Your task to perform on an android device: open a new tab in the chrome app Image 0: 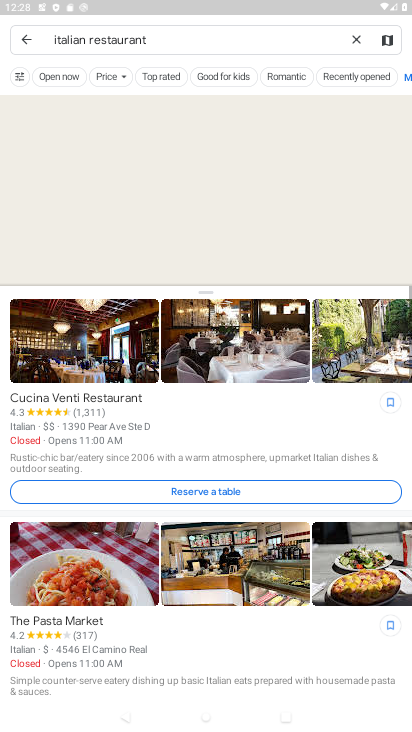
Step 0: press home button
Your task to perform on an android device: open a new tab in the chrome app Image 1: 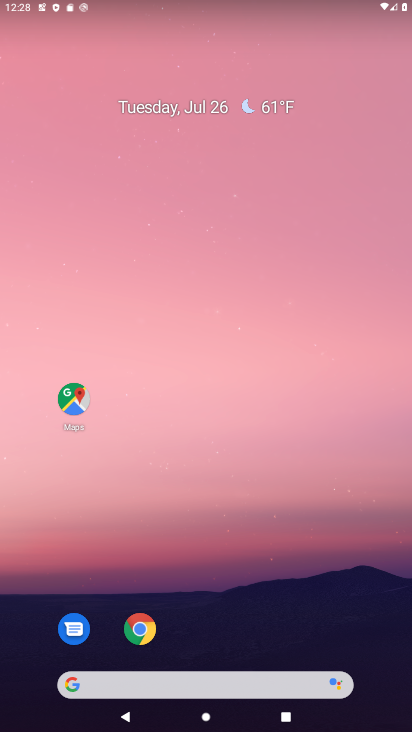
Step 1: click (141, 622)
Your task to perform on an android device: open a new tab in the chrome app Image 2: 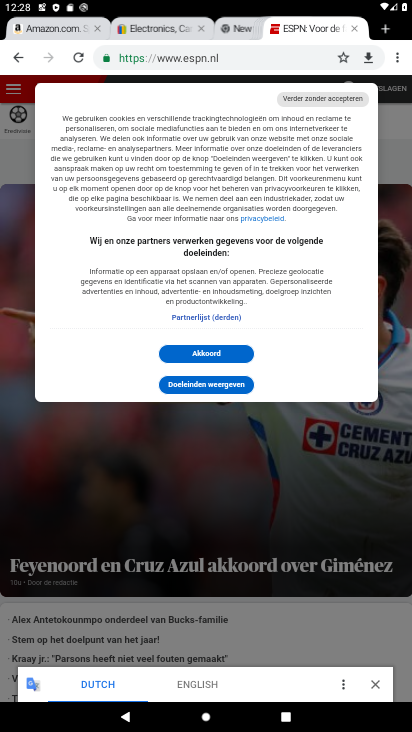
Step 2: click (393, 28)
Your task to perform on an android device: open a new tab in the chrome app Image 3: 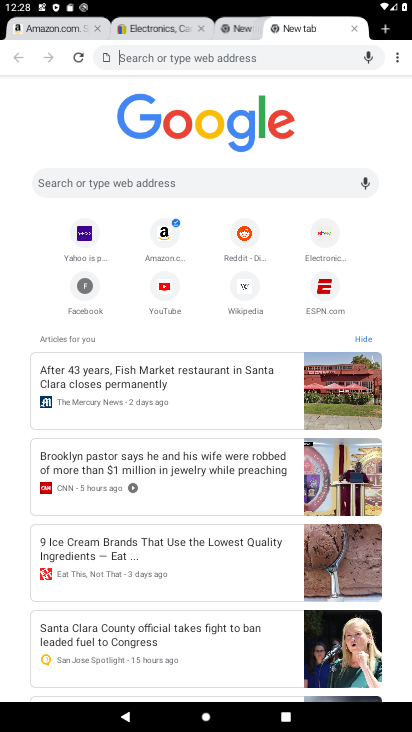
Step 3: task complete